Your task to perform on an android device: set default search engine in the chrome app Image 0: 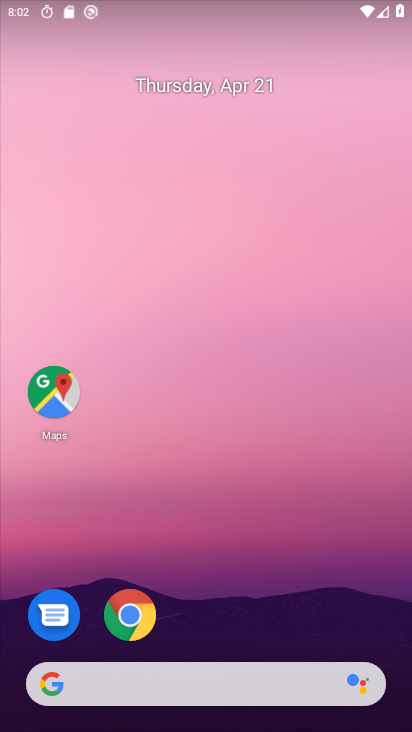
Step 0: press home button
Your task to perform on an android device: set default search engine in the chrome app Image 1: 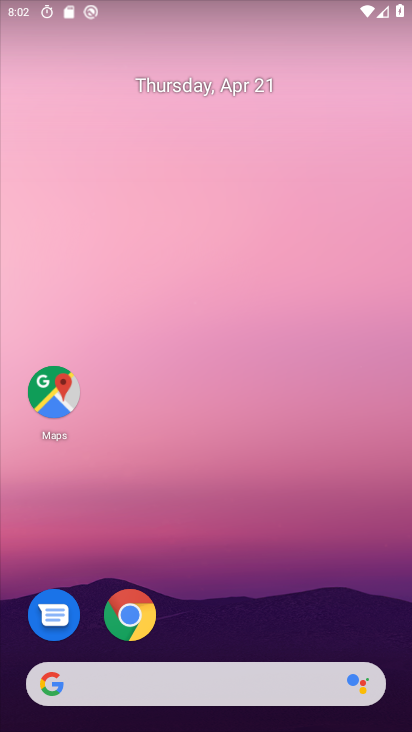
Step 1: drag from (186, 676) to (315, 139)
Your task to perform on an android device: set default search engine in the chrome app Image 2: 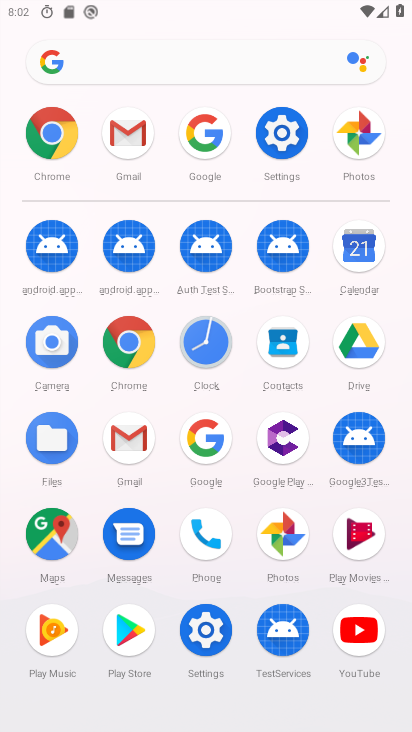
Step 2: click (55, 141)
Your task to perform on an android device: set default search engine in the chrome app Image 3: 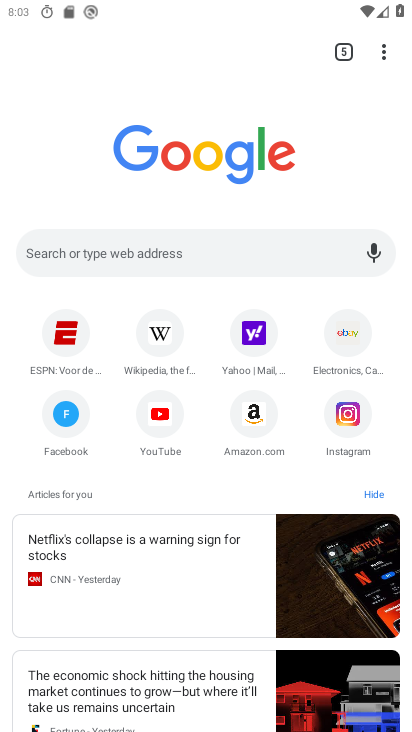
Step 3: click (377, 64)
Your task to perform on an android device: set default search engine in the chrome app Image 4: 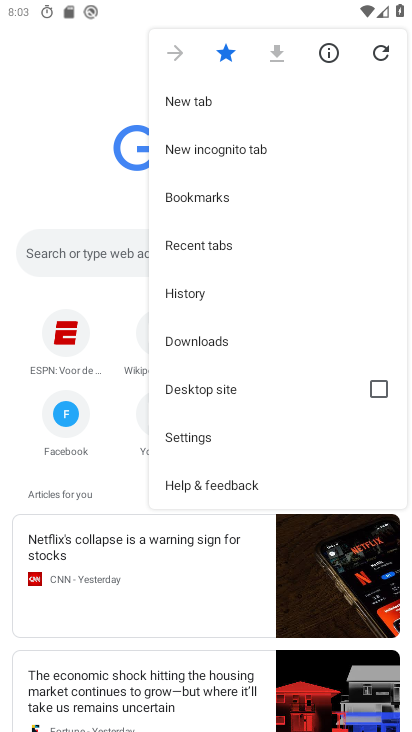
Step 4: click (188, 437)
Your task to perform on an android device: set default search engine in the chrome app Image 5: 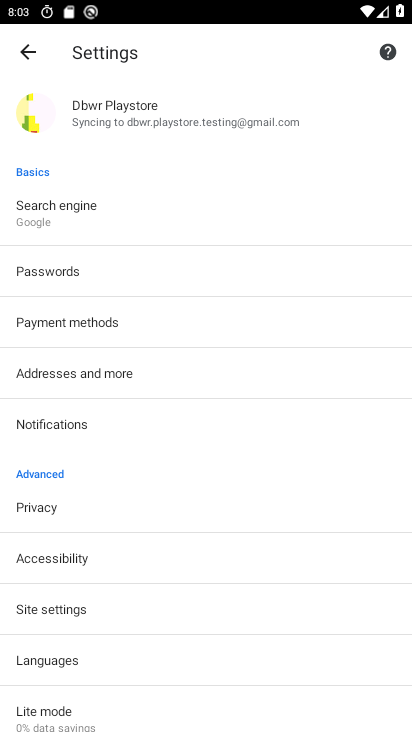
Step 5: click (63, 225)
Your task to perform on an android device: set default search engine in the chrome app Image 6: 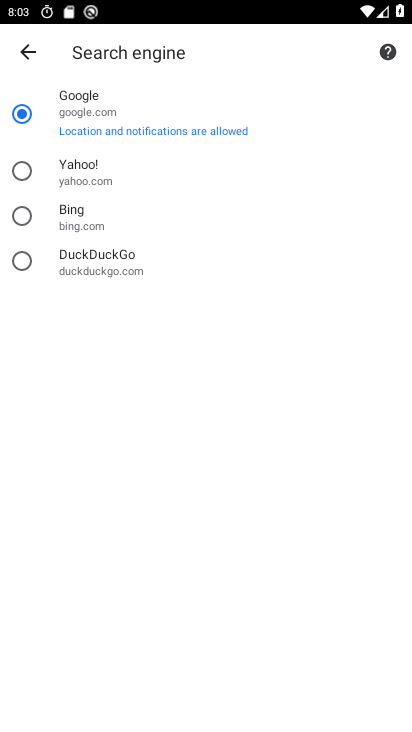
Step 6: click (26, 166)
Your task to perform on an android device: set default search engine in the chrome app Image 7: 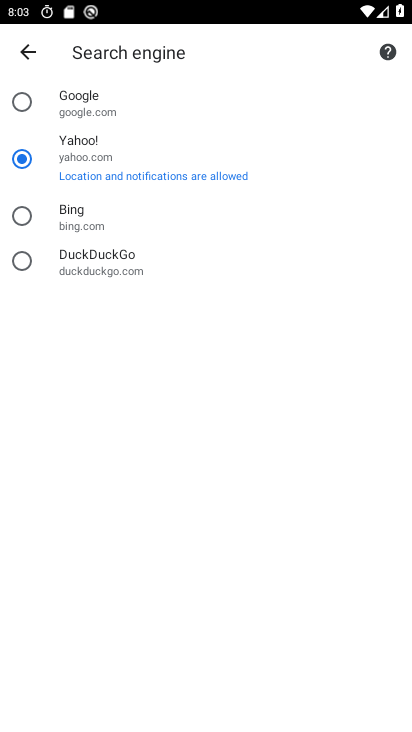
Step 7: task complete